Your task to perform on an android device: turn notification dots off Image 0: 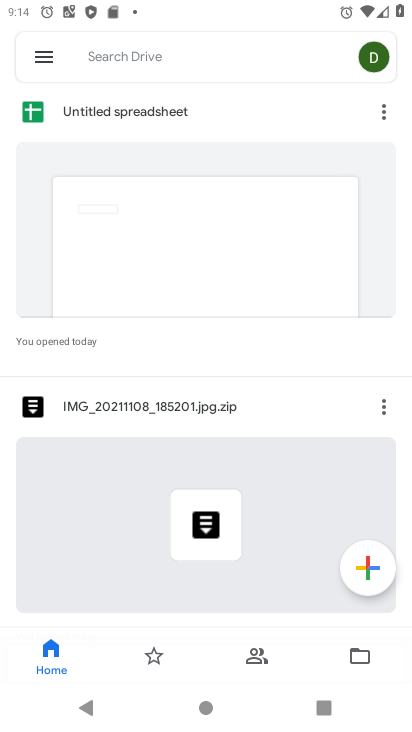
Step 0: press home button
Your task to perform on an android device: turn notification dots off Image 1: 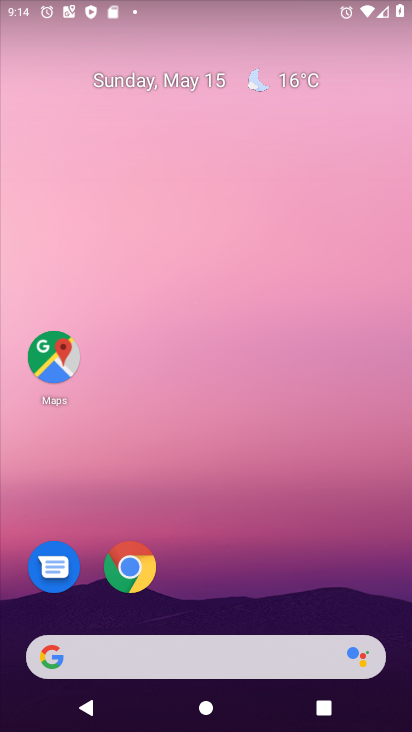
Step 1: drag from (223, 634) to (278, 258)
Your task to perform on an android device: turn notification dots off Image 2: 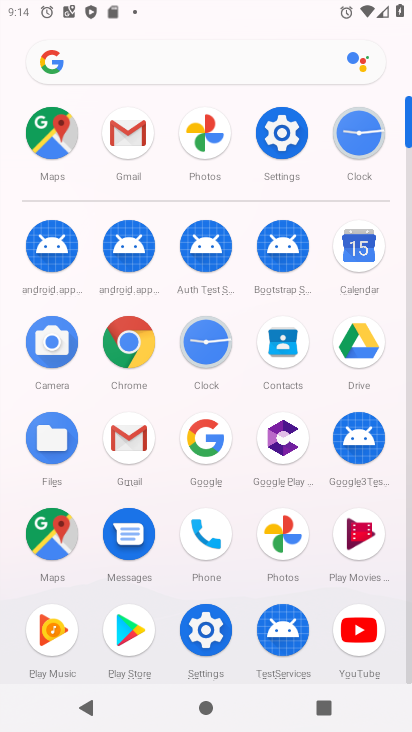
Step 2: click (210, 630)
Your task to perform on an android device: turn notification dots off Image 3: 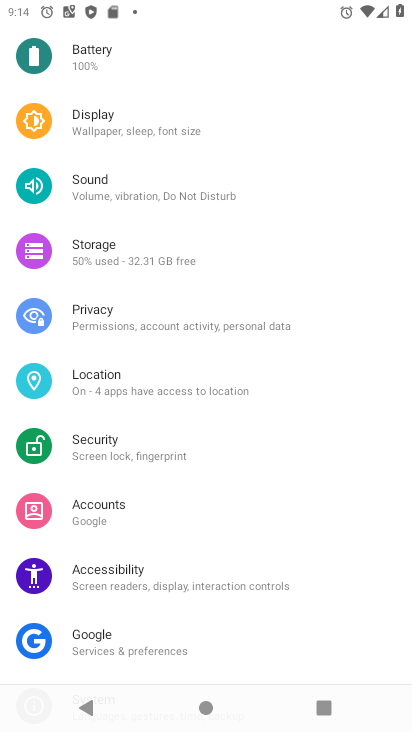
Step 3: drag from (180, 293) to (147, 529)
Your task to perform on an android device: turn notification dots off Image 4: 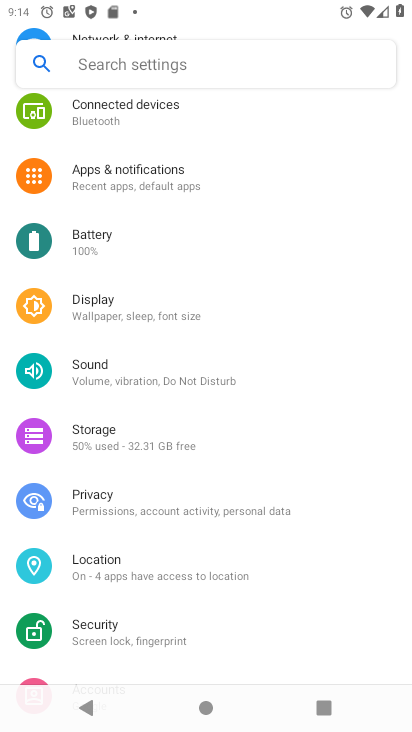
Step 4: click (127, 164)
Your task to perform on an android device: turn notification dots off Image 5: 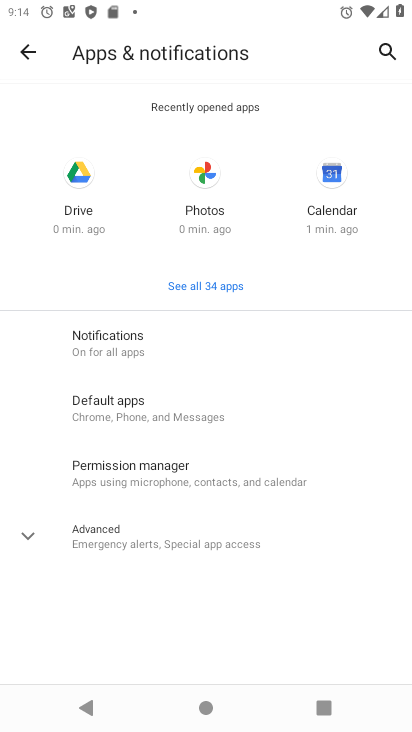
Step 5: click (155, 360)
Your task to perform on an android device: turn notification dots off Image 6: 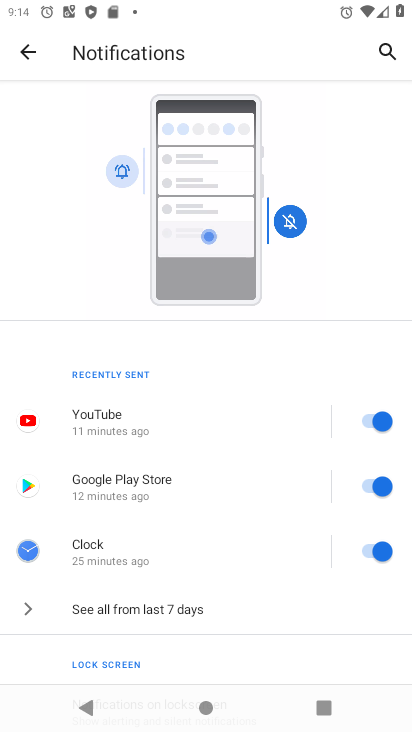
Step 6: drag from (173, 580) to (213, 289)
Your task to perform on an android device: turn notification dots off Image 7: 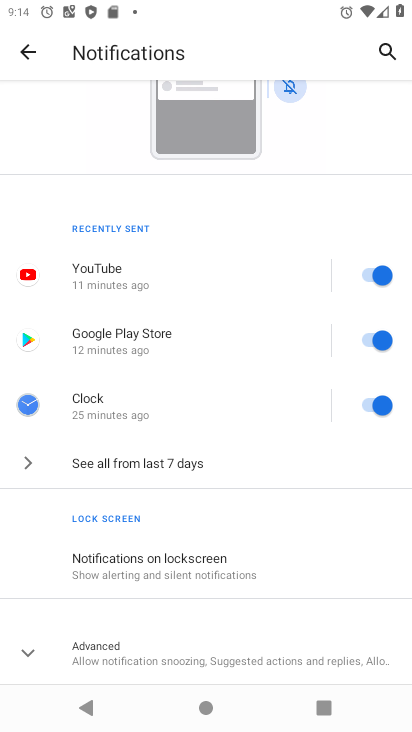
Step 7: click (81, 647)
Your task to perform on an android device: turn notification dots off Image 8: 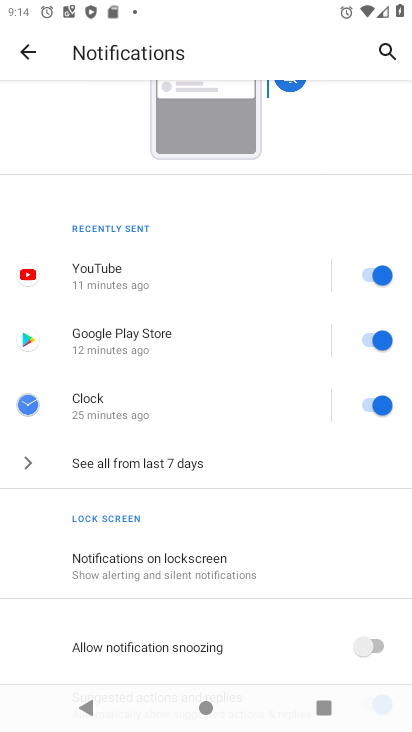
Step 8: task complete